Your task to perform on an android device: open a bookmark in the chrome app Image 0: 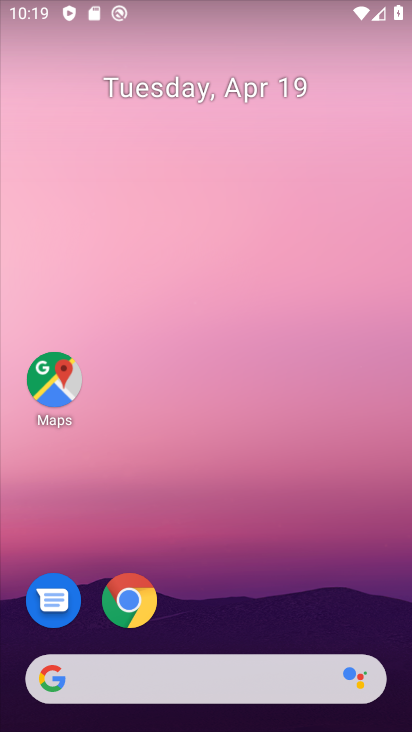
Step 0: click (146, 604)
Your task to perform on an android device: open a bookmark in the chrome app Image 1: 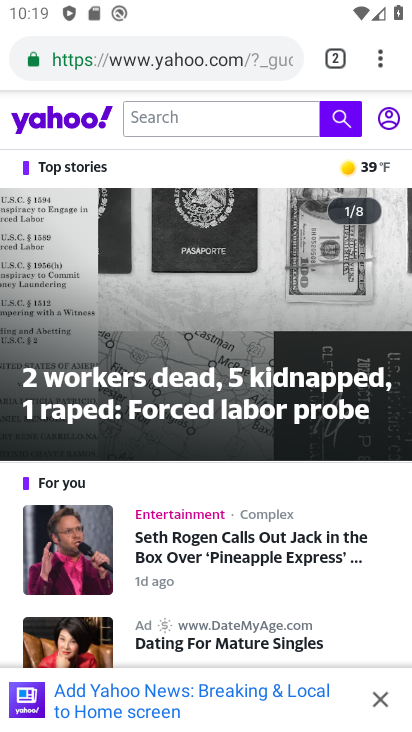
Step 1: click (336, 61)
Your task to perform on an android device: open a bookmark in the chrome app Image 2: 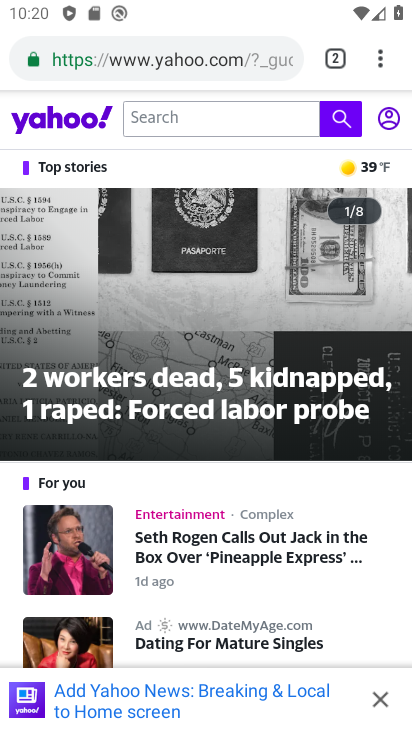
Step 2: click (338, 57)
Your task to perform on an android device: open a bookmark in the chrome app Image 3: 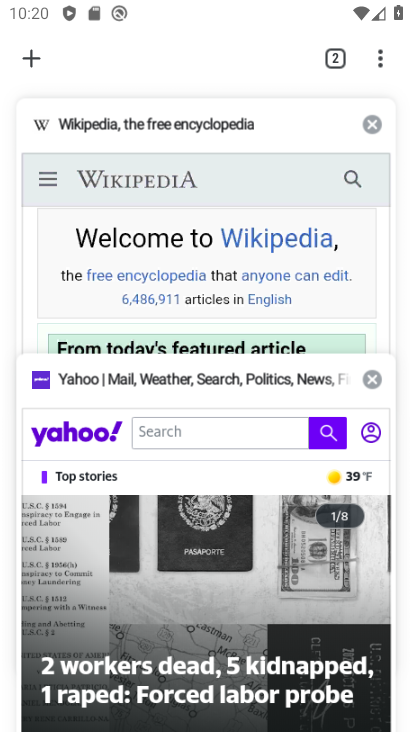
Step 3: click (28, 52)
Your task to perform on an android device: open a bookmark in the chrome app Image 4: 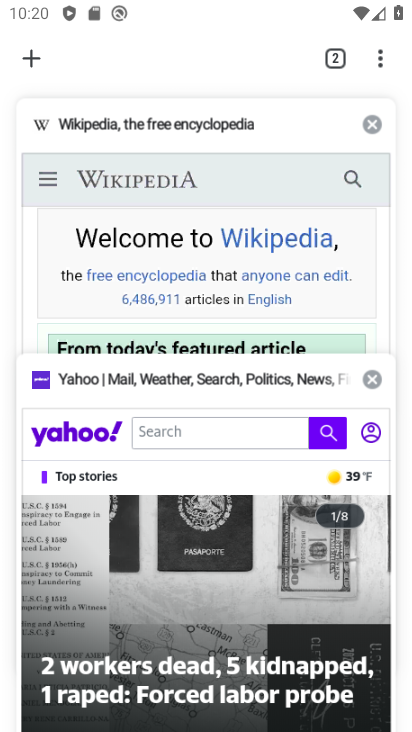
Step 4: click (26, 51)
Your task to perform on an android device: open a bookmark in the chrome app Image 5: 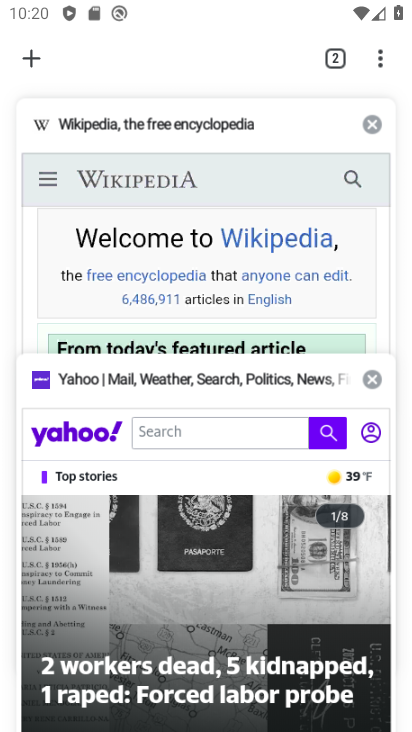
Step 5: click (41, 64)
Your task to perform on an android device: open a bookmark in the chrome app Image 6: 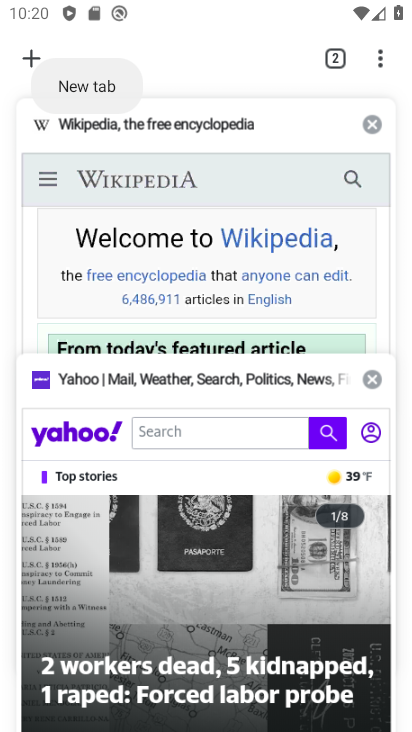
Step 6: click (31, 51)
Your task to perform on an android device: open a bookmark in the chrome app Image 7: 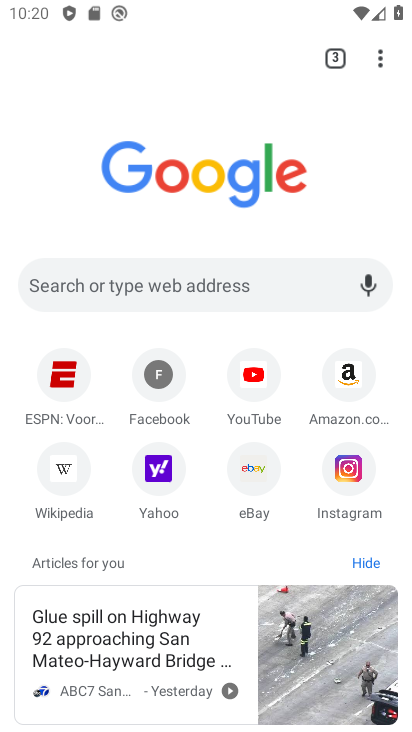
Step 7: click (249, 470)
Your task to perform on an android device: open a bookmark in the chrome app Image 8: 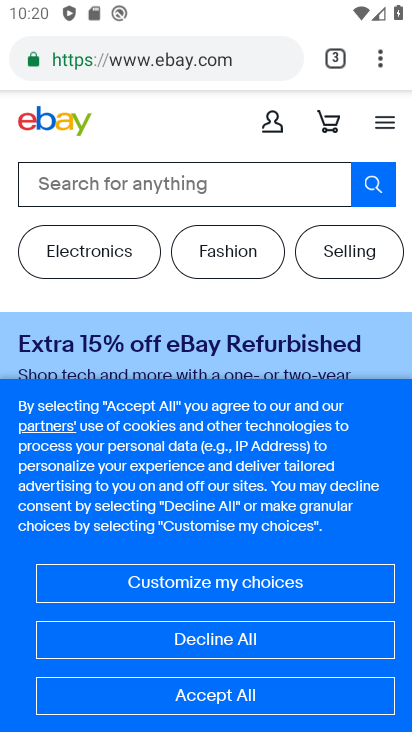
Step 8: task complete